Your task to perform on an android device: add a contact in the contacts app Image 0: 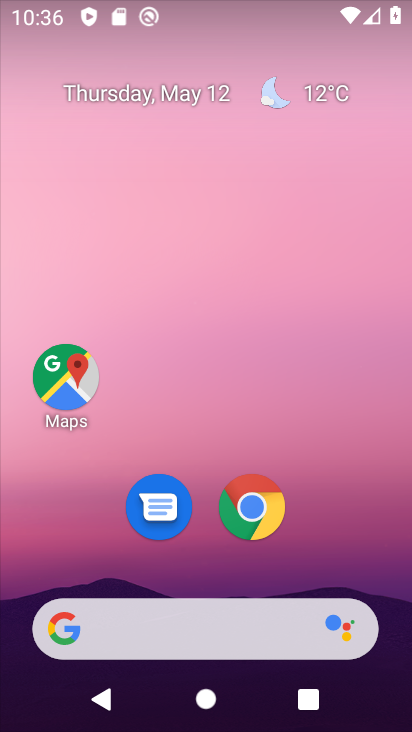
Step 0: drag from (211, 578) to (259, 5)
Your task to perform on an android device: add a contact in the contacts app Image 1: 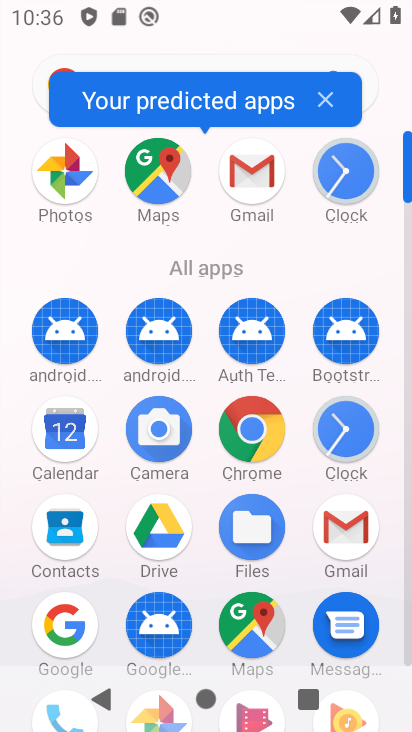
Step 1: click (75, 521)
Your task to perform on an android device: add a contact in the contacts app Image 2: 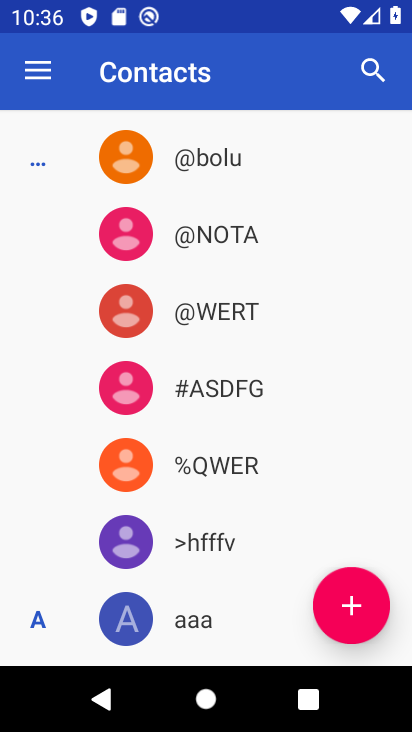
Step 2: click (371, 604)
Your task to perform on an android device: add a contact in the contacts app Image 3: 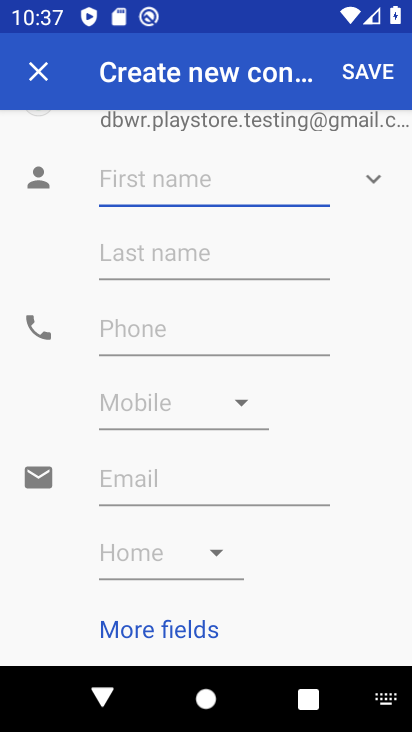
Step 3: type "amel"
Your task to perform on an android device: add a contact in the contacts app Image 4: 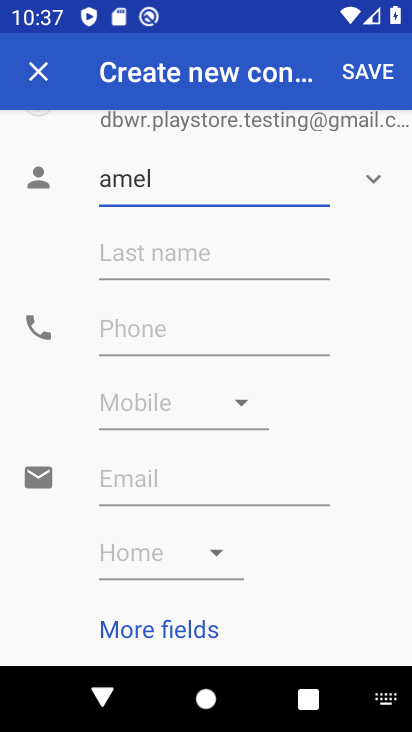
Step 4: click (357, 81)
Your task to perform on an android device: add a contact in the contacts app Image 5: 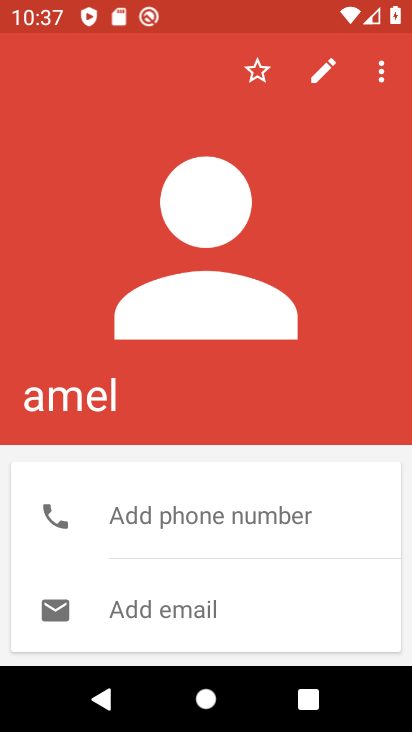
Step 5: task complete